Your task to perform on an android device: toggle show notifications on the lock screen Image 0: 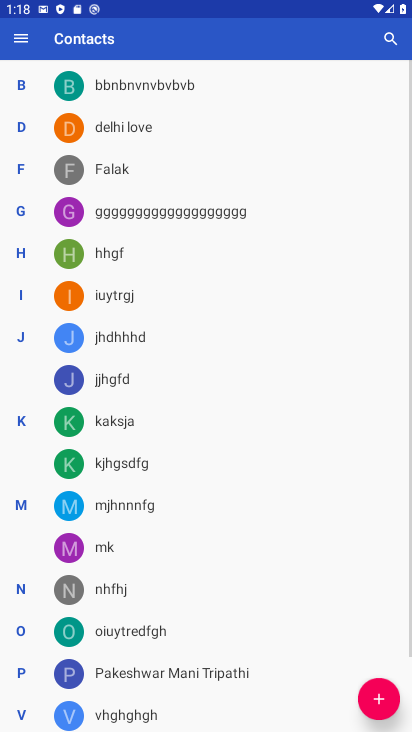
Step 0: press home button
Your task to perform on an android device: toggle show notifications on the lock screen Image 1: 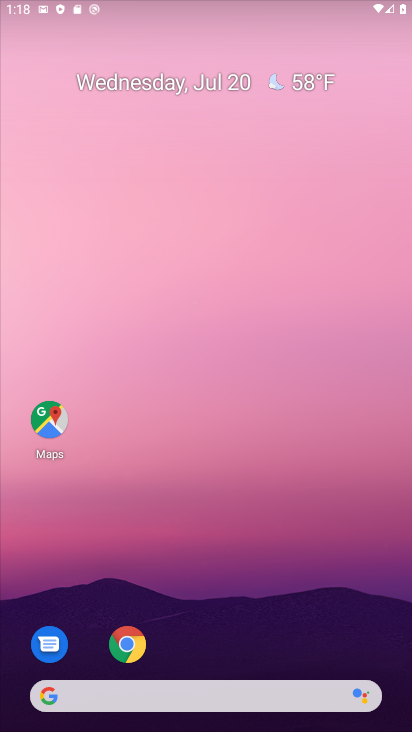
Step 1: drag from (176, 548) to (194, 83)
Your task to perform on an android device: toggle show notifications on the lock screen Image 2: 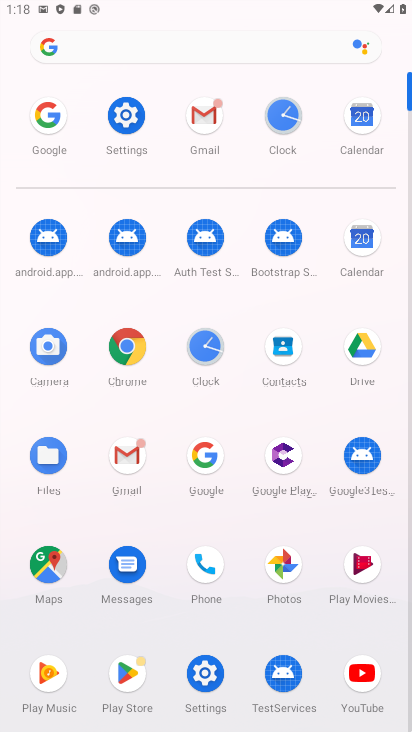
Step 2: click (123, 114)
Your task to perform on an android device: toggle show notifications on the lock screen Image 3: 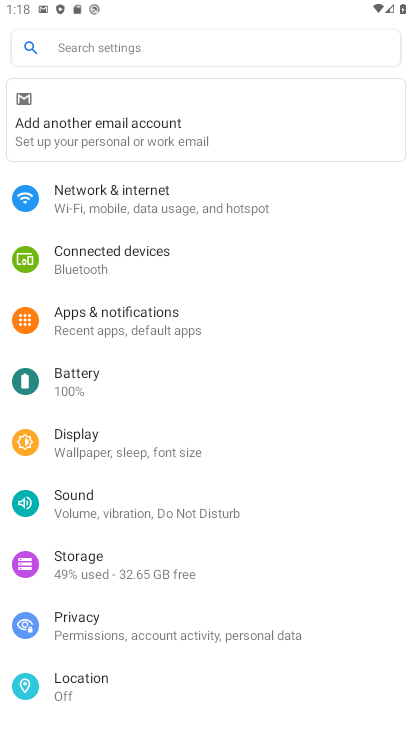
Step 3: click (124, 323)
Your task to perform on an android device: toggle show notifications on the lock screen Image 4: 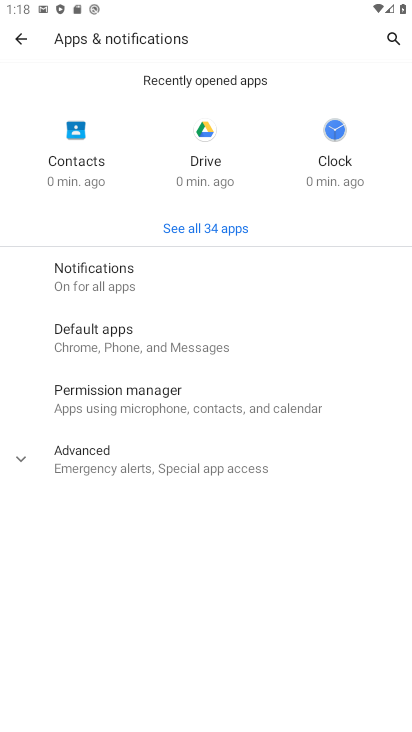
Step 4: click (123, 270)
Your task to perform on an android device: toggle show notifications on the lock screen Image 5: 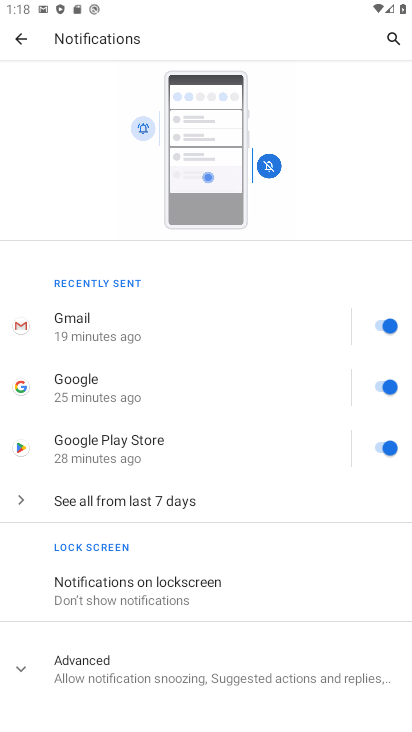
Step 5: click (144, 593)
Your task to perform on an android device: toggle show notifications on the lock screen Image 6: 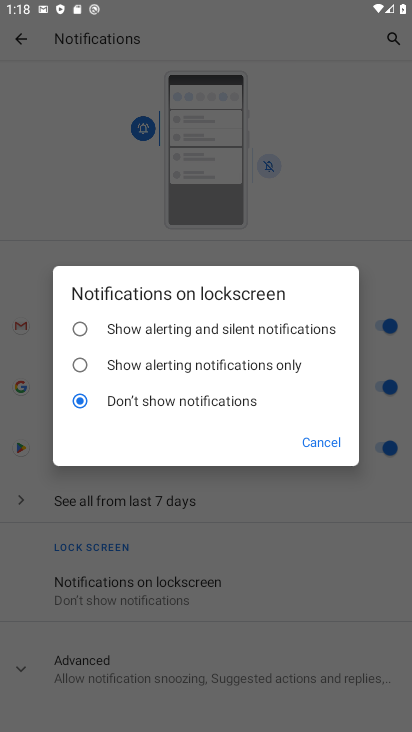
Step 6: click (79, 329)
Your task to perform on an android device: toggle show notifications on the lock screen Image 7: 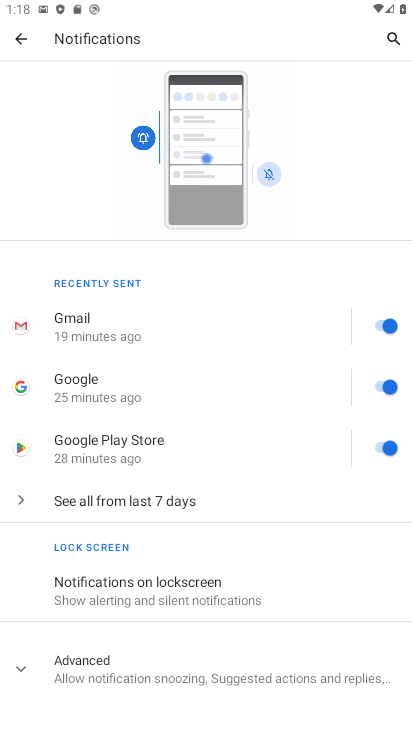
Step 7: task complete